Your task to perform on an android device: toggle sleep mode Image 0: 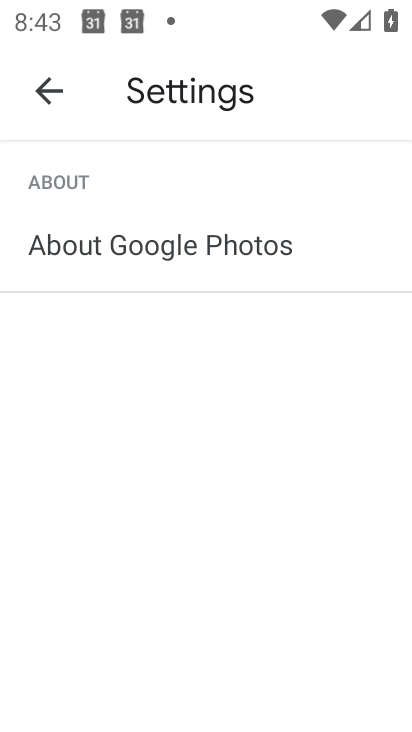
Step 0: task complete